Your task to perform on an android device: Check the news Image 0: 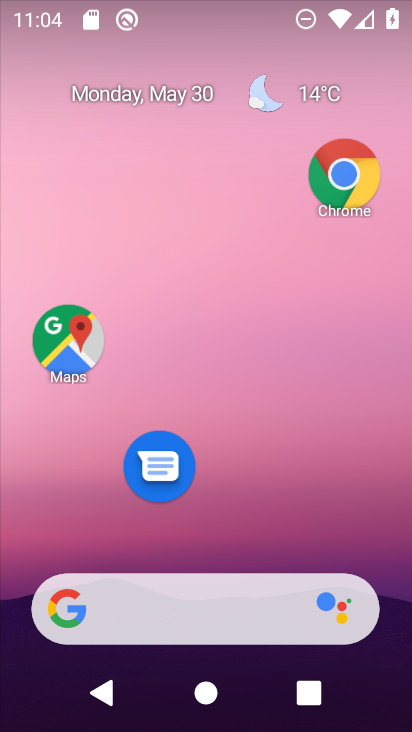
Step 0: click (301, 436)
Your task to perform on an android device: Check the news Image 1: 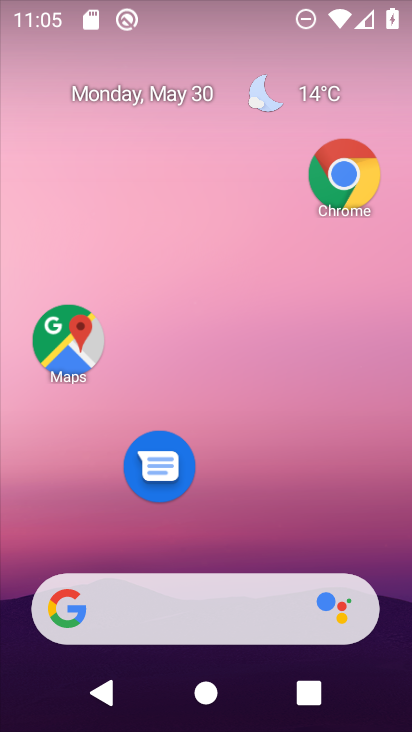
Step 1: click (212, 621)
Your task to perform on an android device: Check the news Image 2: 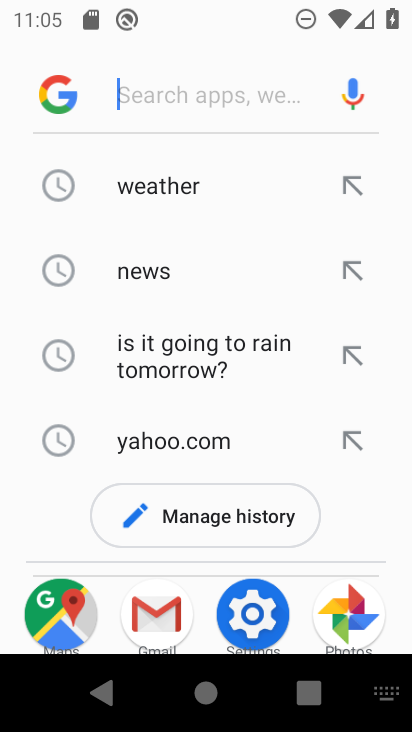
Step 2: click (176, 248)
Your task to perform on an android device: Check the news Image 3: 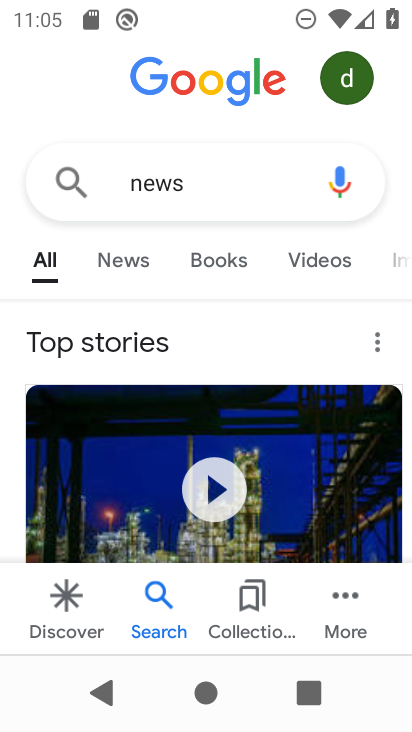
Step 3: task complete